Your task to perform on an android device: check the backup settings in the google photos Image 0: 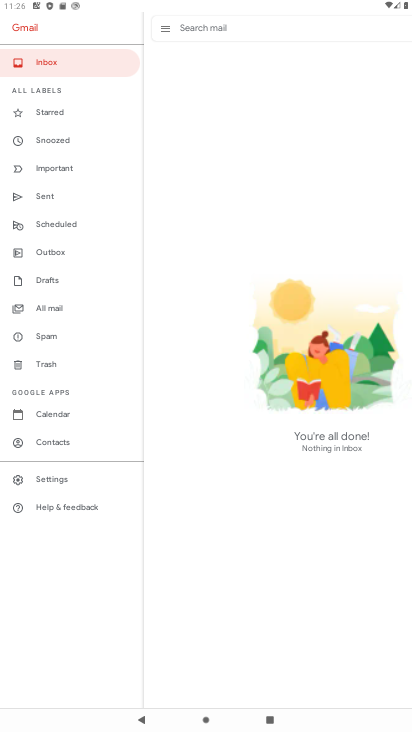
Step 0: press home button
Your task to perform on an android device: check the backup settings in the google photos Image 1: 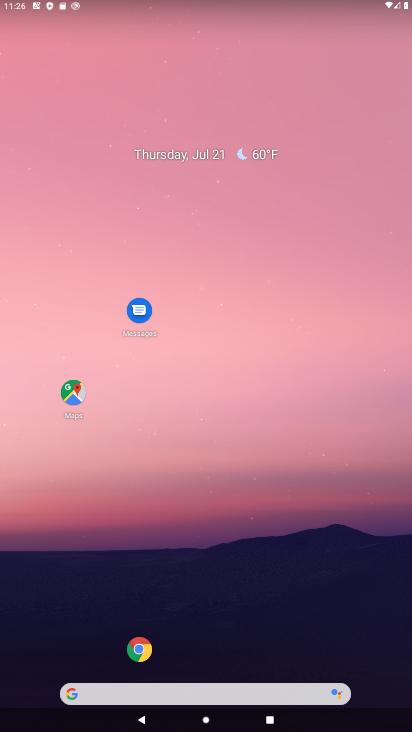
Step 1: drag from (114, 529) to (292, 77)
Your task to perform on an android device: check the backup settings in the google photos Image 2: 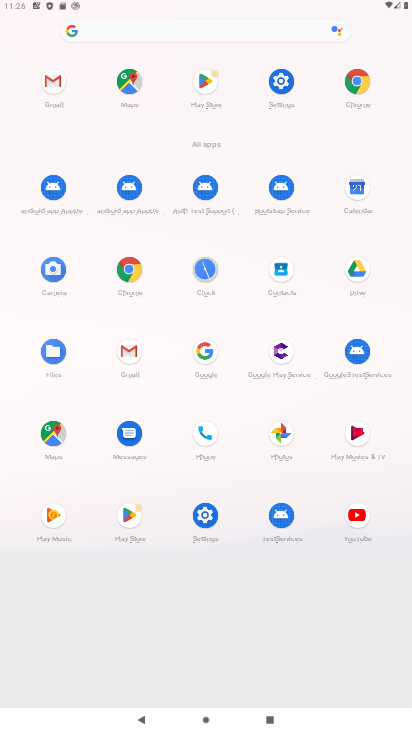
Step 2: click (270, 432)
Your task to perform on an android device: check the backup settings in the google photos Image 3: 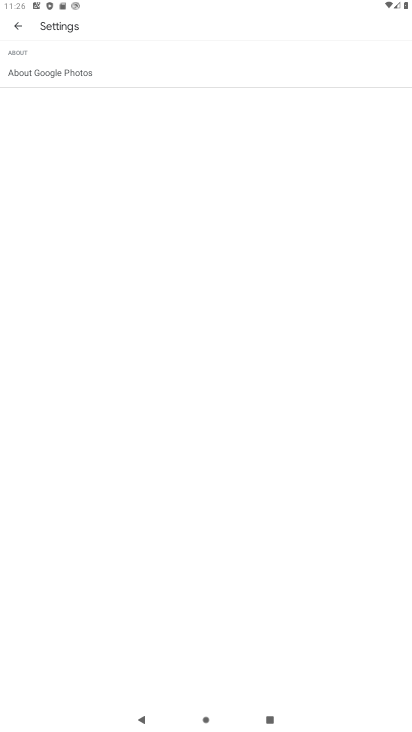
Step 3: click (12, 28)
Your task to perform on an android device: check the backup settings in the google photos Image 4: 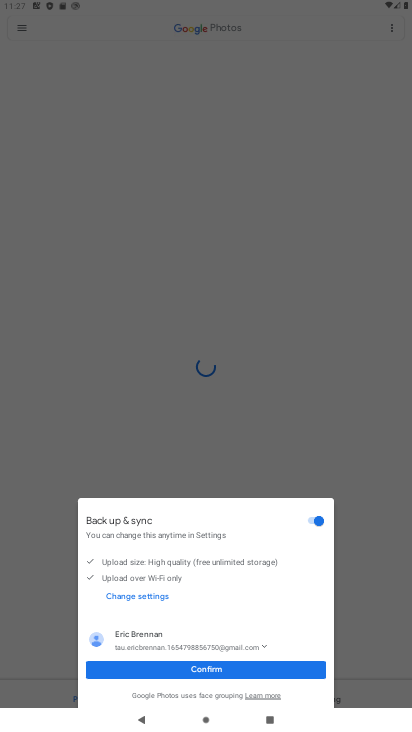
Step 4: click (246, 665)
Your task to perform on an android device: check the backup settings in the google photos Image 5: 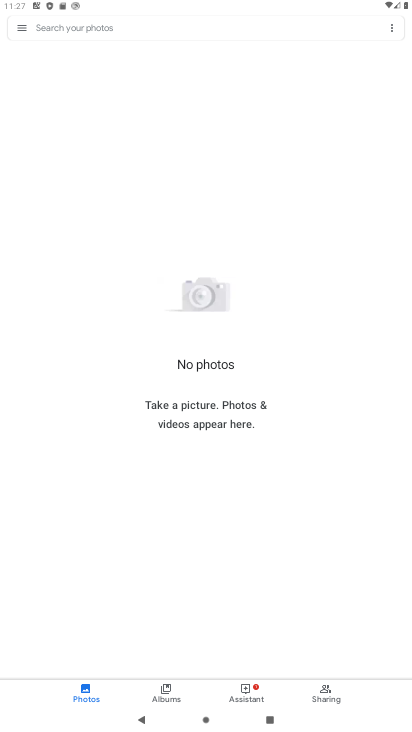
Step 5: click (23, 27)
Your task to perform on an android device: check the backup settings in the google photos Image 6: 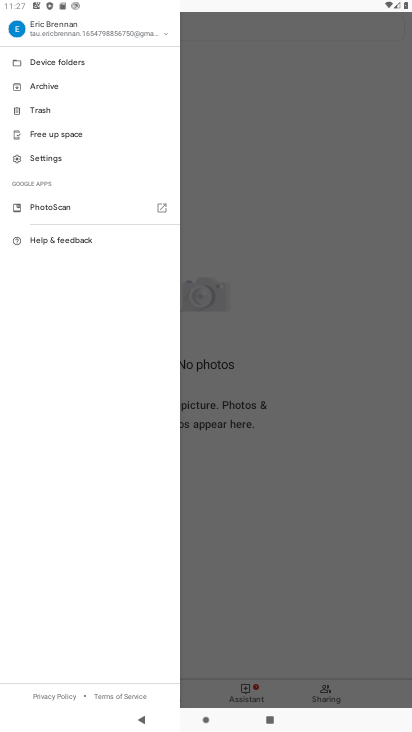
Step 6: click (50, 157)
Your task to perform on an android device: check the backup settings in the google photos Image 7: 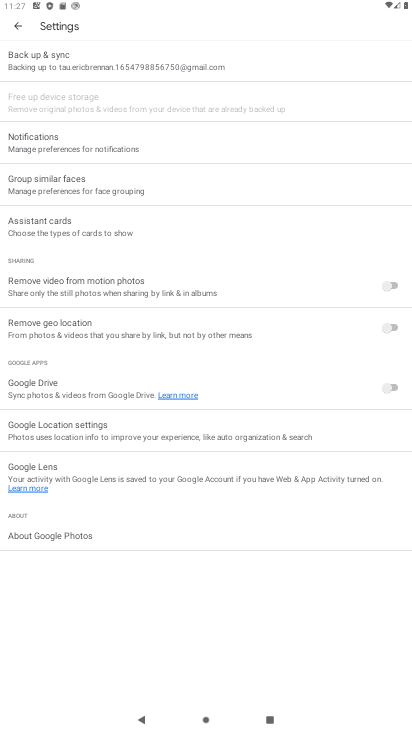
Step 7: click (45, 63)
Your task to perform on an android device: check the backup settings in the google photos Image 8: 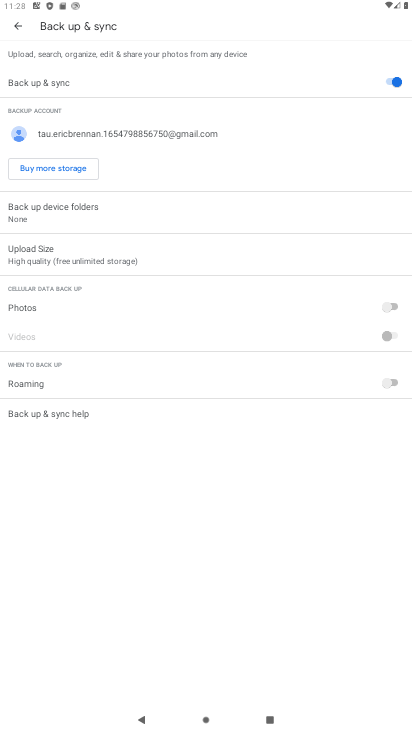
Step 8: task complete